Your task to perform on an android device: toggle priority inbox in the gmail app Image 0: 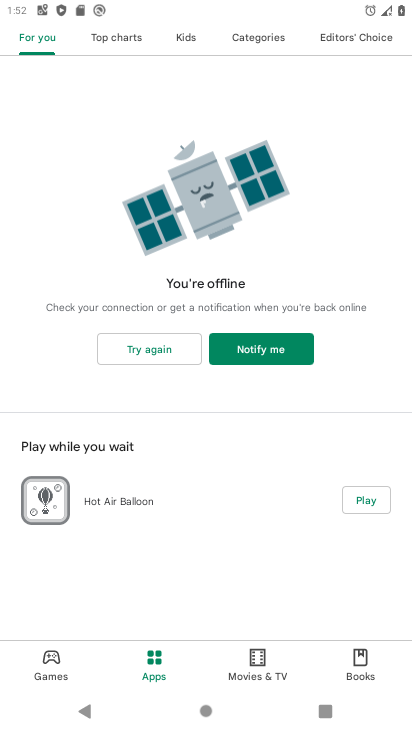
Step 0: press home button
Your task to perform on an android device: toggle priority inbox in the gmail app Image 1: 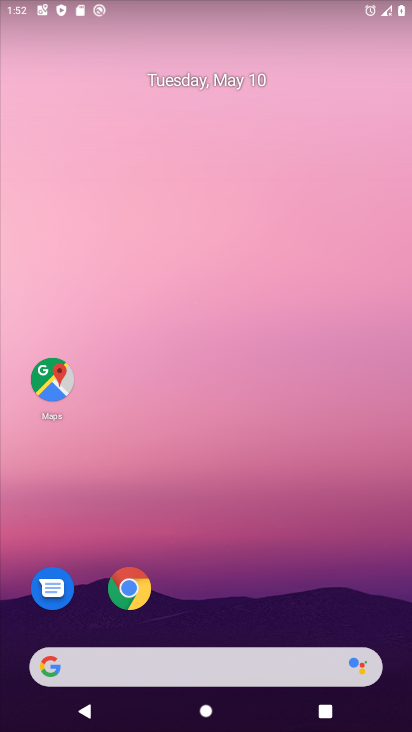
Step 1: drag from (265, 574) to (290, 205)
Your task to perform on an android device: toggle priority inbox in the gmail app Image 2: 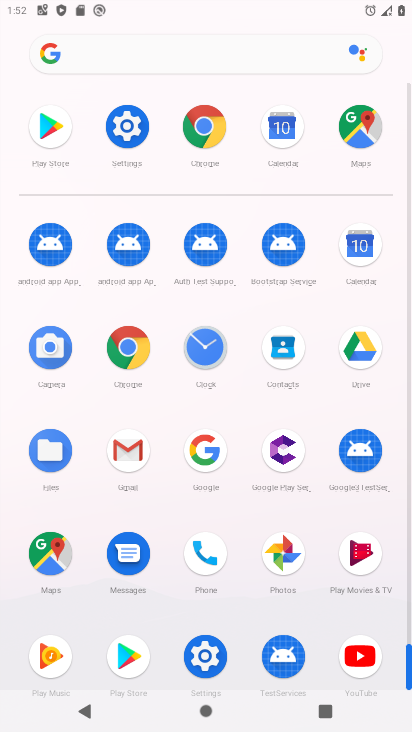
Step 2: click (125, 444)
Your task to perform on an android device: toggle priority inbox in the gmail app Image 3: 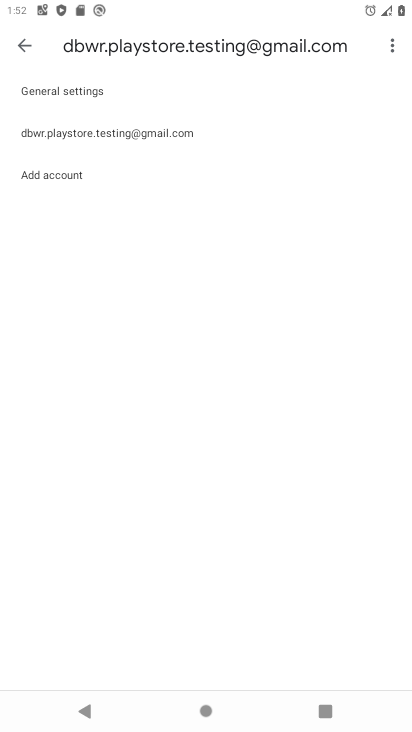
Step 3: click (106, 134)
Your task to perform on an android device: toggle priority inbox in the gmail app Image 4: 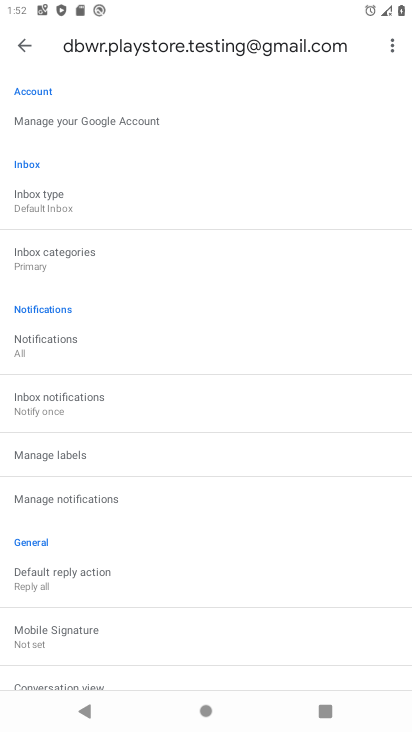
Step 4: click (58, 205)
Your task to perform on an android device: toggle priority inbox in the gmail app Image 5: 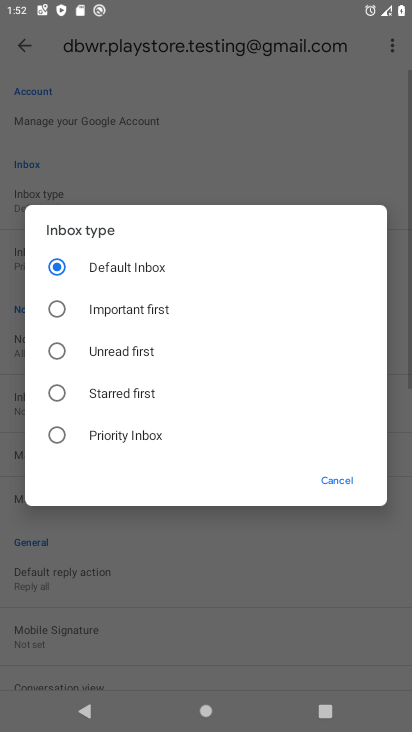
Step 5: click (99, 429)
Your task to perform on an android device: toggle priority inbox in the gmail app Image 6: 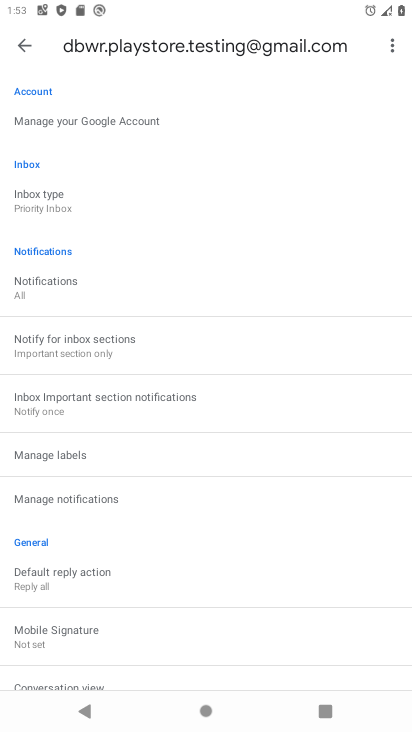
Step 6: task complete